Your task to perform on an android device: Open the phone app and click the voicemail tab. Image 0: 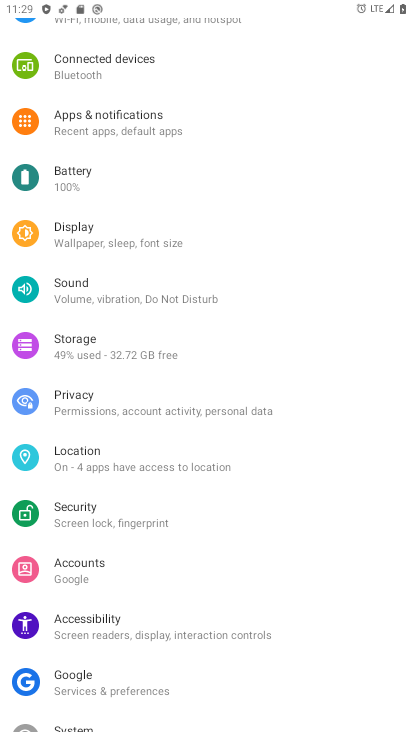
Step 0: press home button
Your task to perform on an android device: Open the phone app and click the voicemail tab. Image 1: 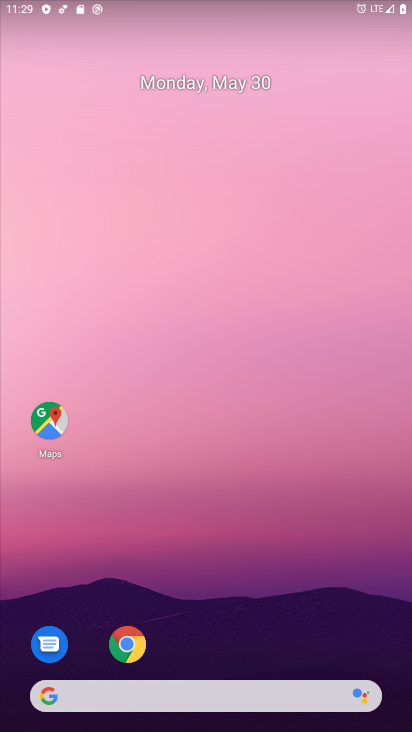
Step 1: drag from (285, 612) to (343, 160)
Your task to perform on an android device: Open the phone app and click the voicemail tab. Image 2: 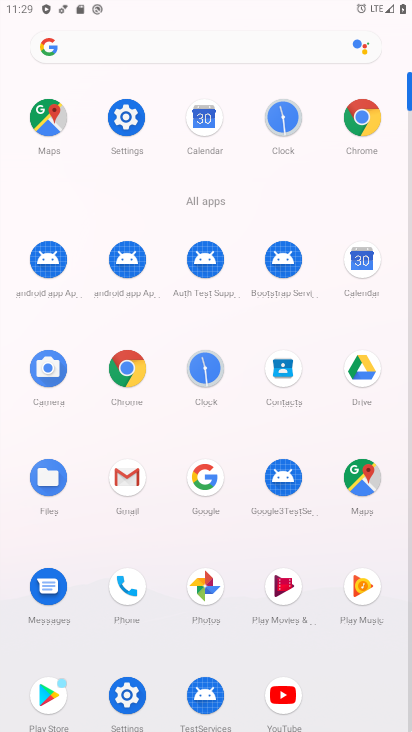
Step 2: click (137, 598)
Your task to perform on an android device: Open the phone app and click the voicemail tab. Image 3: 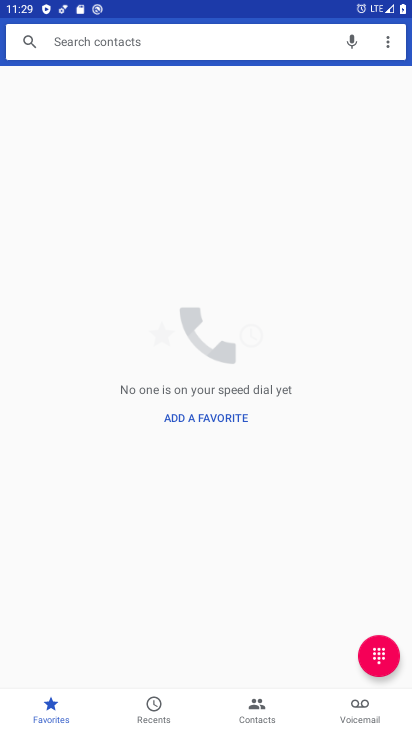
Step 3: click (370, 685)
Your task to perform on an android device: Open the phone app and click the voicemail tab. Image 4: 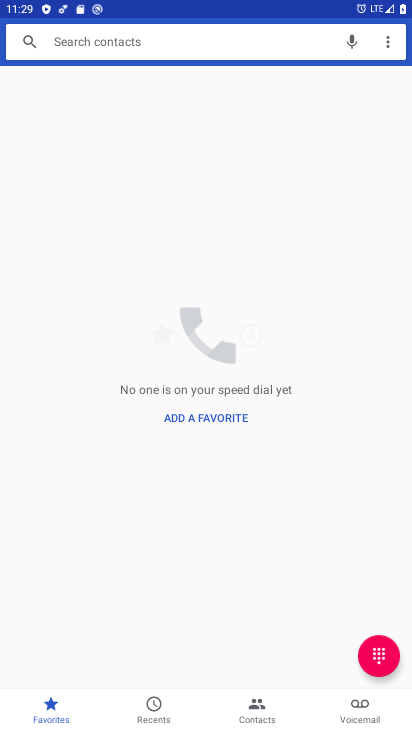
Step 4: click (360, 724)
Your task to perform on an android device: Open the phone app and click the voicemail tab. Image 5: 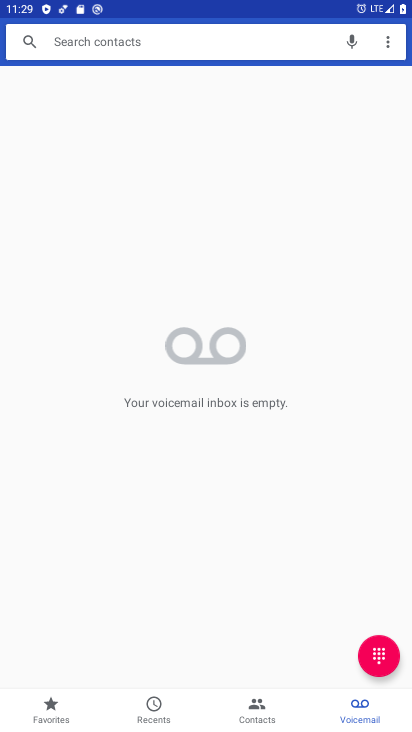
Step 5: task complete